Your task to perform on an android device: change alarm snooze length Image 0: 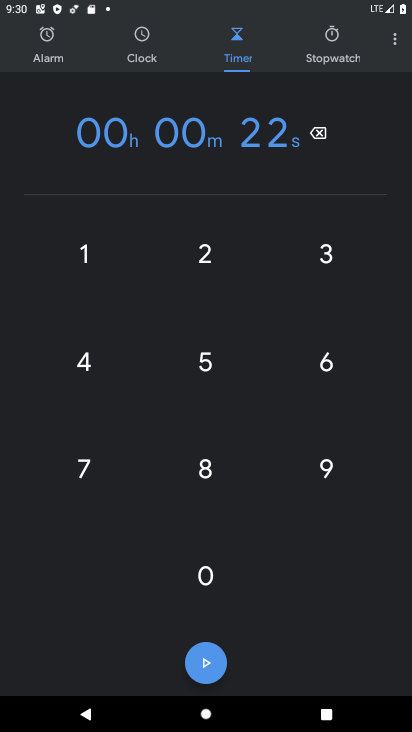
Step 0: press home button
Your task to perform on an android device: change alarm snooze length Image 1: 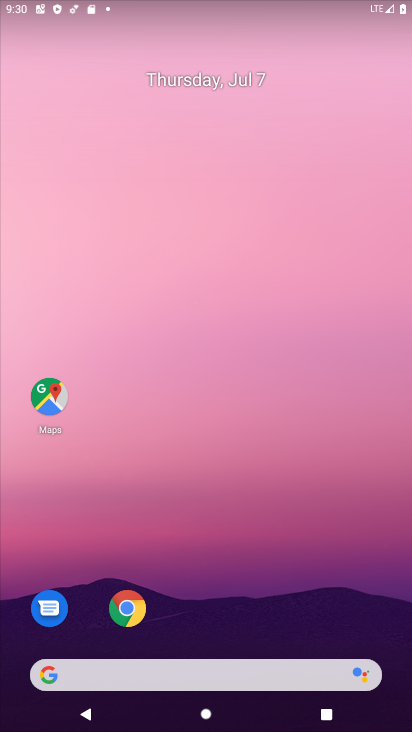
Step 1: drag from (256, 612) to (333, 67)
Your task to perform on an android device: change alarm snooze length Image 2: 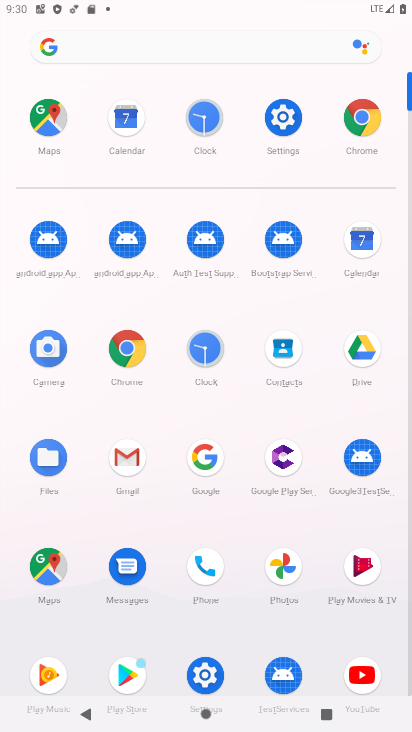
Step 2: click (207, 344)
Your task to perform on an android device: change alarm snooze length Image 3: 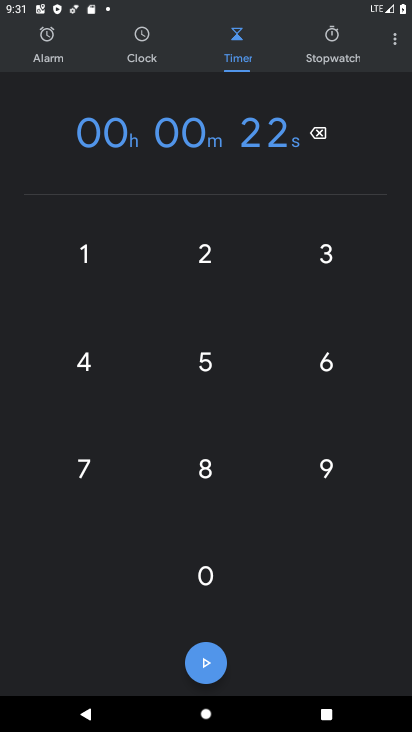
Step 3: click (388, 43)
Your task to perform on an android device: change alarm snooze length Image 4: 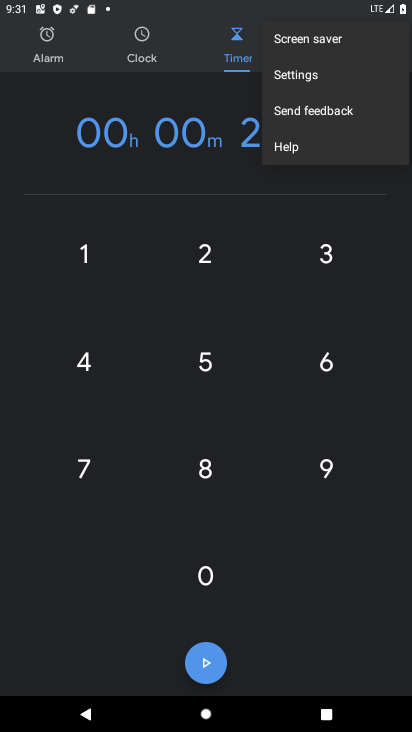
Step 4: click (315, 72)
Your task to perform on an android device: change alarm snooze length Image 5: 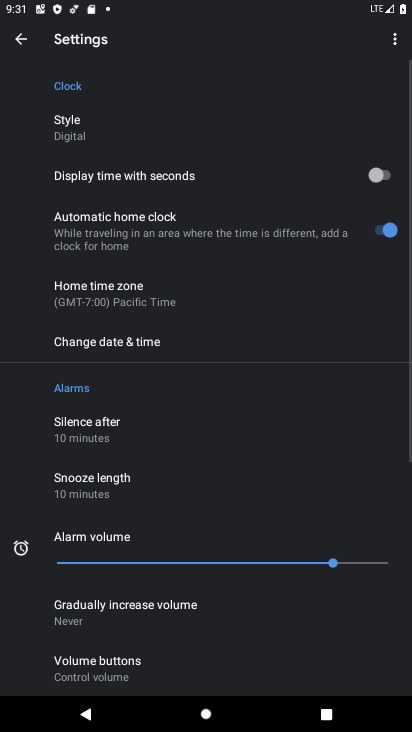
Step 5: click (120, 489)
Your task to perform on an android device: change alarm snooze length Image 6: 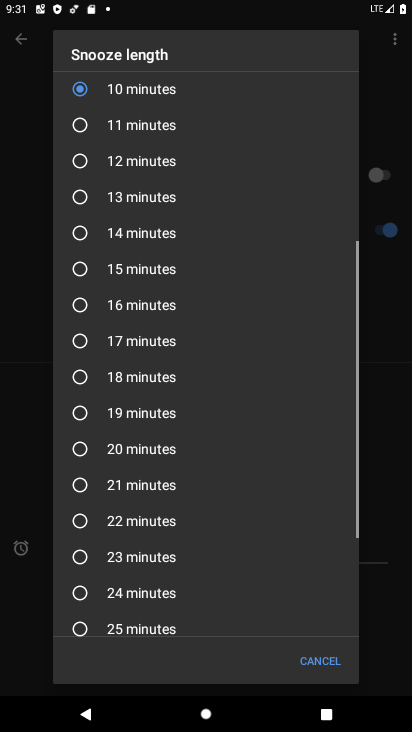
Step 6: click (84, 342)
Your task to perform on an android device: change alarm snooze length Image 7: 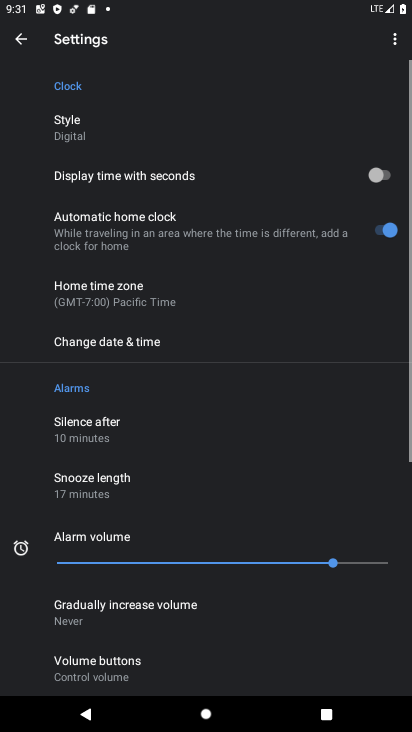
Step 7: task complete